Your task to perform on an android device: turn off smart reply in the gmail app Image 0: 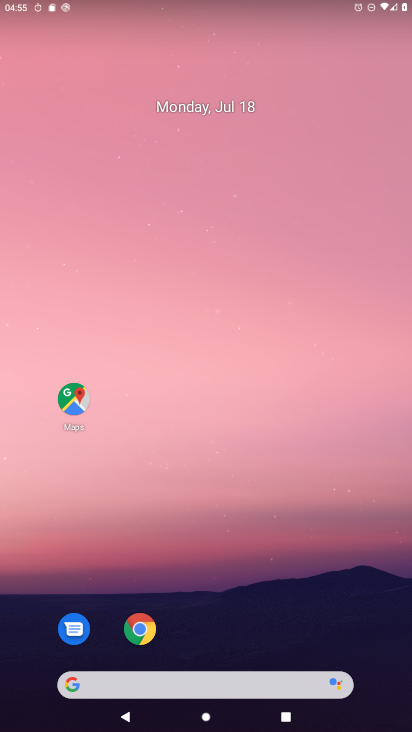
Step 0: drag from (145, 690) to (151, 157)
Your task to perform on an android device: turn off smart reply in the gmail app Image 1: 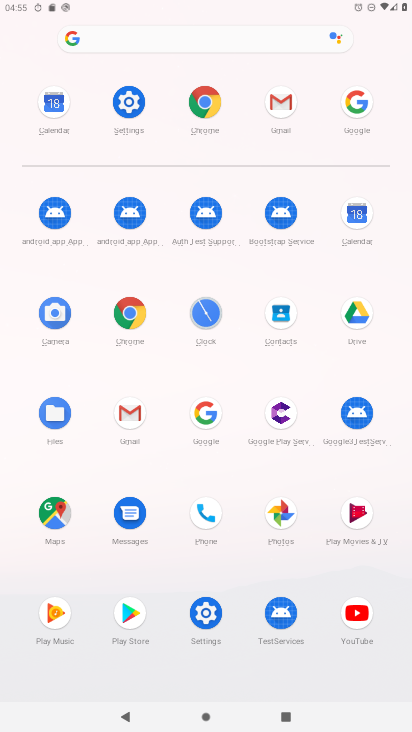
Step 1: click (280, 100)
Your task to perform on an android device: turn off smart reply in the gmail app Image 2: 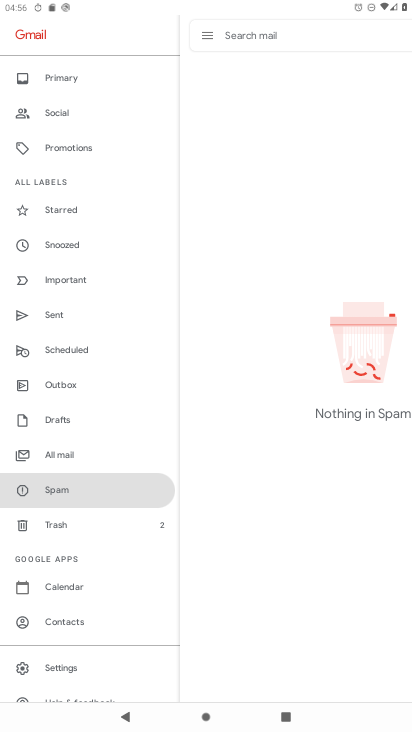
Step 2: click (73, 667)
Your task to perform on an android device: turn off smart reply in the gmail app Image 3: 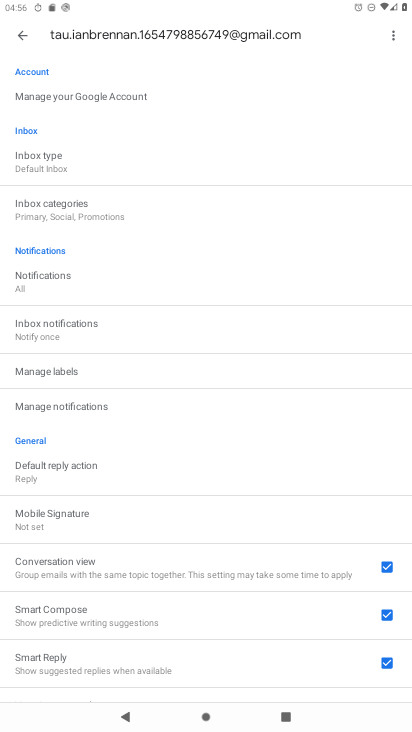
Step 3: click (392, 664)
Your task to perform on an android device: turn off smart reply in the gmail app Image 4: 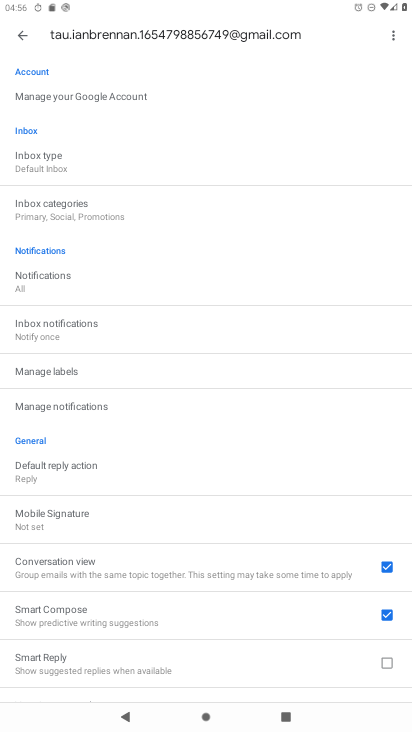
Step 4: task complete